Your task to perform on an android device: open app "Facebook Lite" (install if not already installed) Image 0: 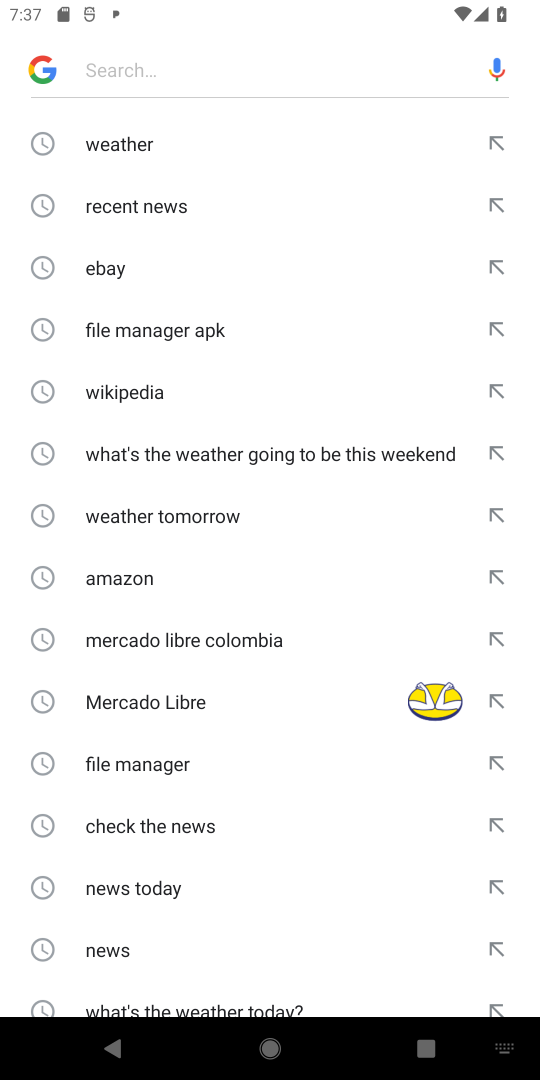
Step 0: press home button
Your task to perform on an android device: open app "Facebook Lite" (install if not already installed) Image 1: 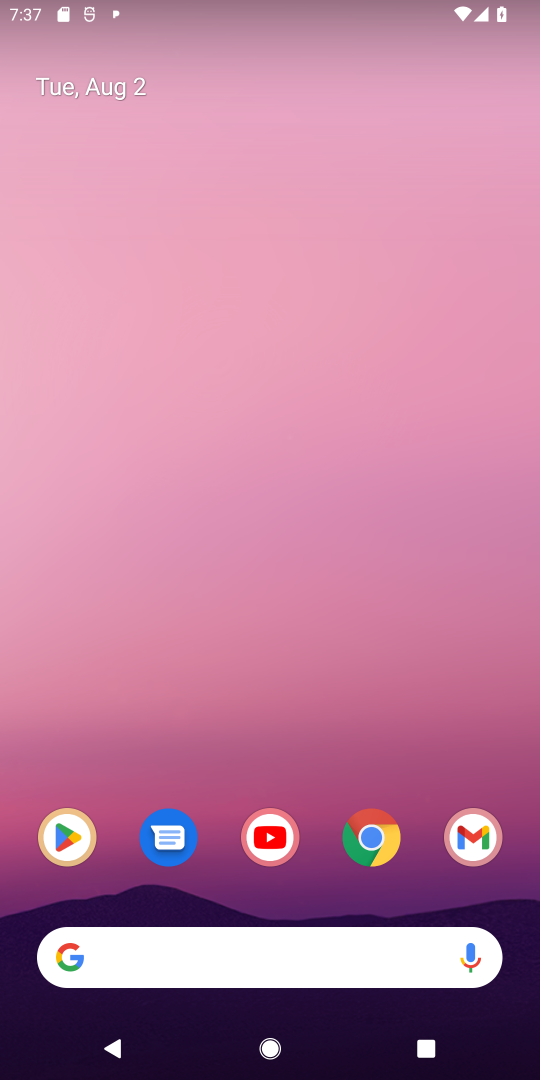
Step 1: click (61, 843)
Your task to perform on an android device: open app "Facebook Lite" (install if not already installed) Image 2: 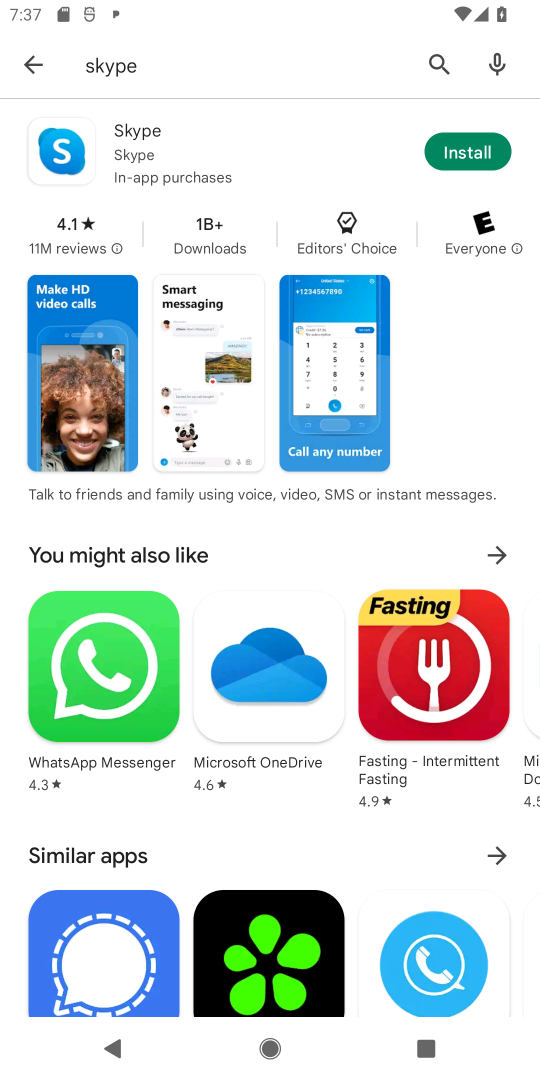
Step 2: click (430, 61)
Your task to perform on an android device: open app "Facebook Lite" (install if not already installed) Image 3: 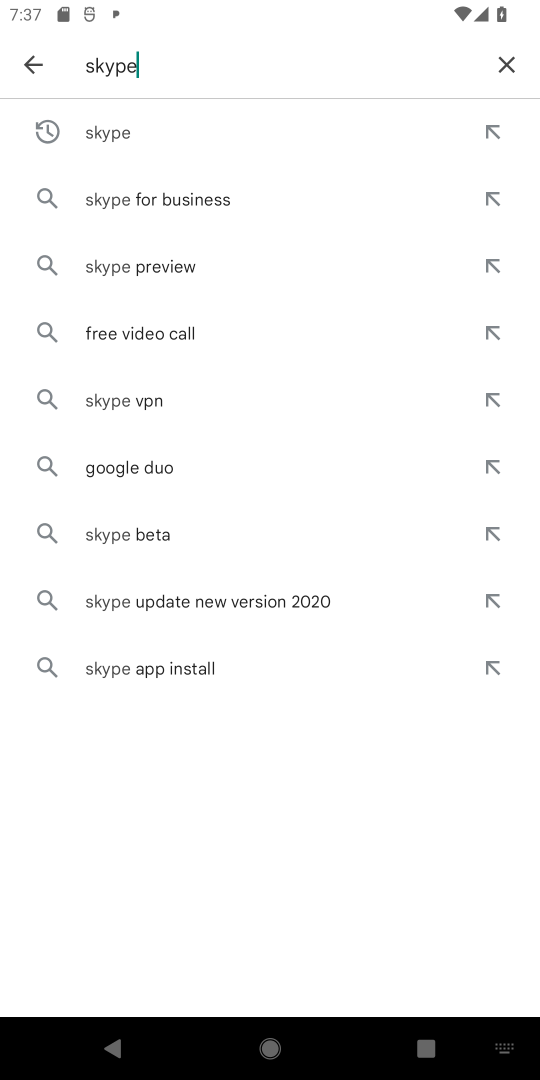
Step 3: click (512, 80)
Your task to perform on an android device: open app "Facebook Lite" (install if not already installed) Image 4: 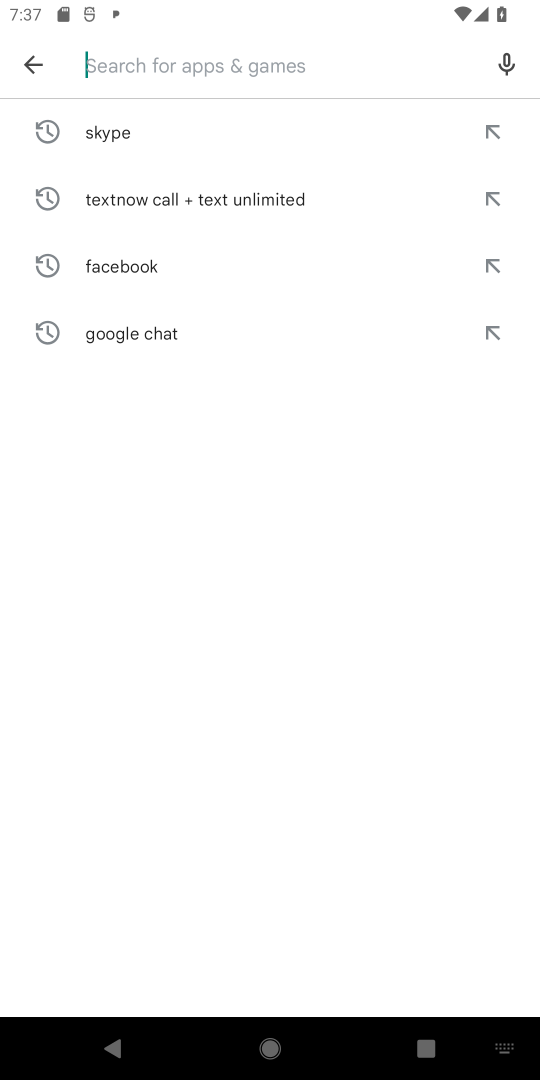
Step 4: type "Facebook Lite"
Your task to perform on an android device: open app "Facebook Lite" (install if not already installed) Image 5: 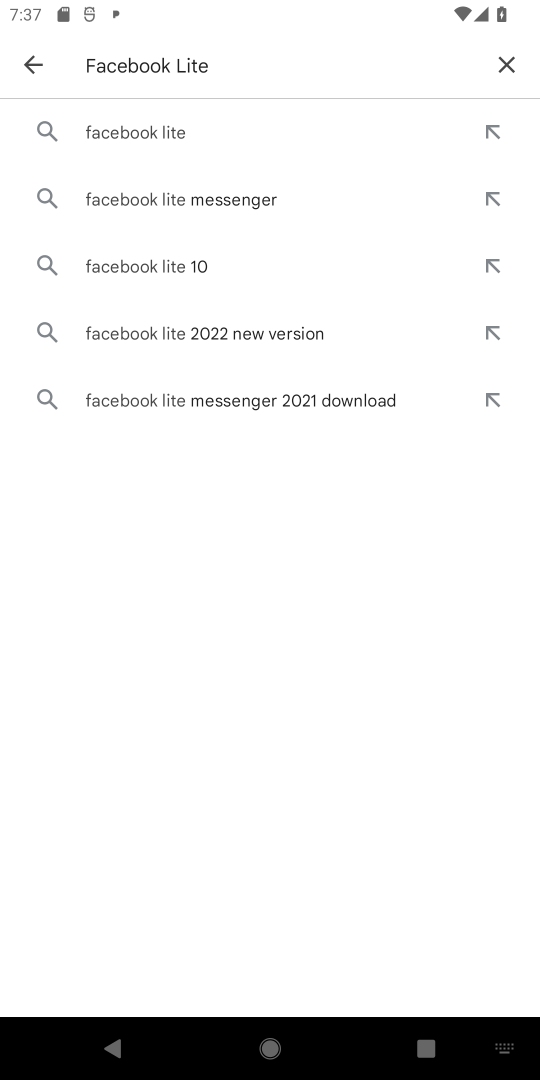
Step 5: click (155, 148)
Your task to perform on an android device: open app "Facebook Lite" (install if not already installed) Image 6: 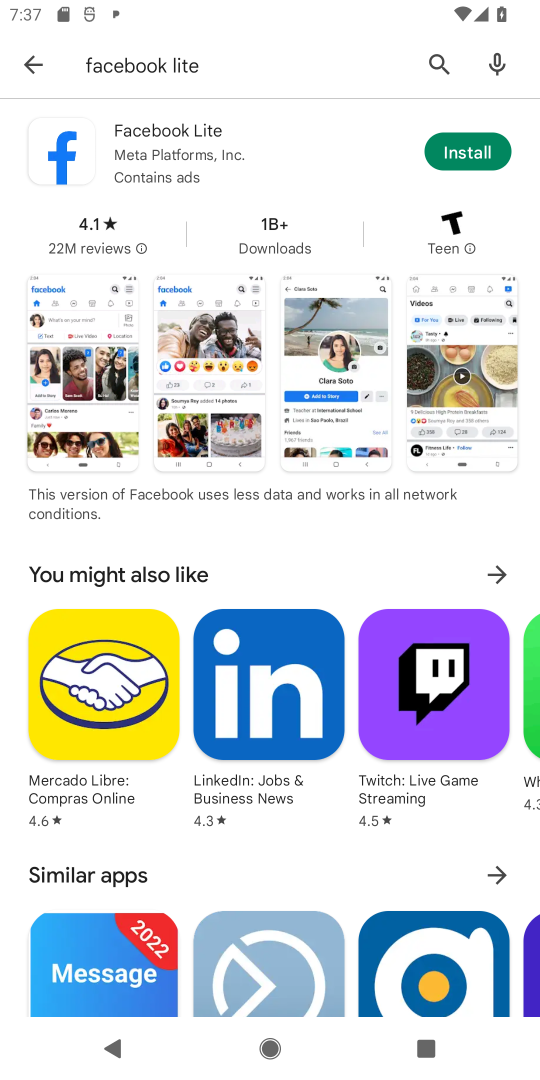
Step 6: click (461, 150)
Your task to perform on an android device: open app "Facebook Lite" (install if not already installed) Image 7: 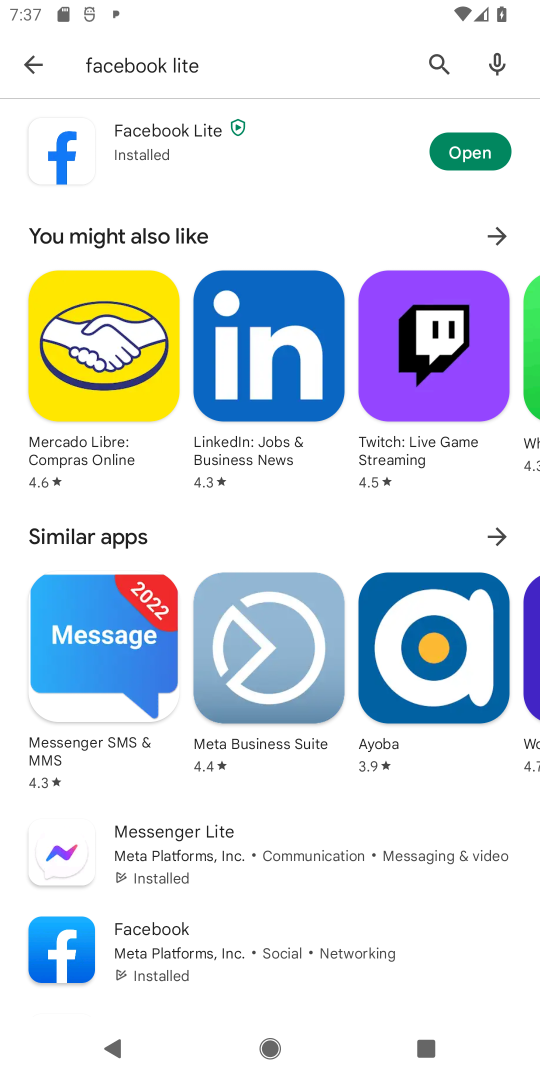
Step 7: click (476, 164)
Your task to perform on an android device: open app "Facebook Lite" (install if not already installed) Image 8: 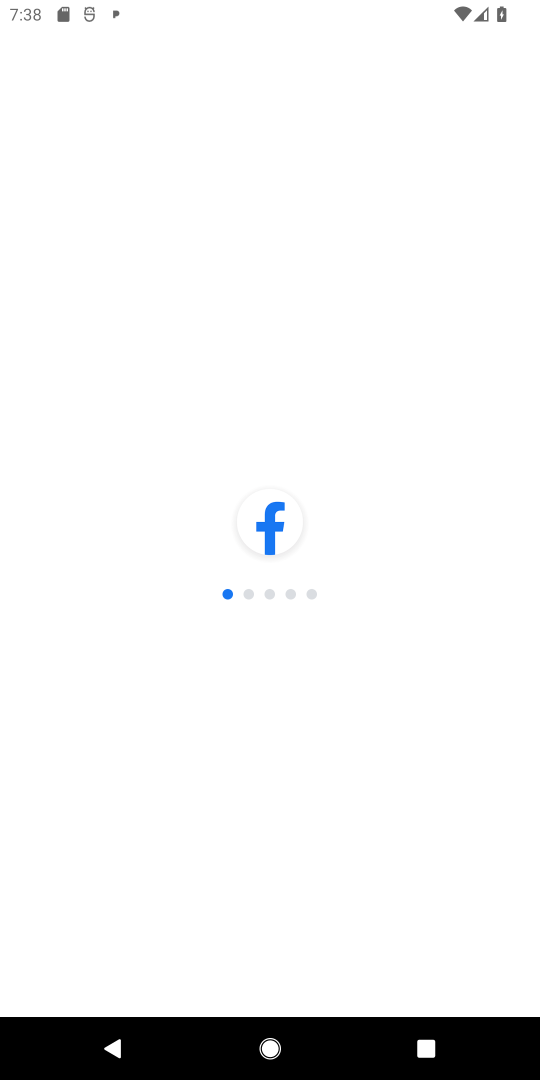
Step 8: task complete